Your task to perform on an android device: Open Reddit.com Image 0: 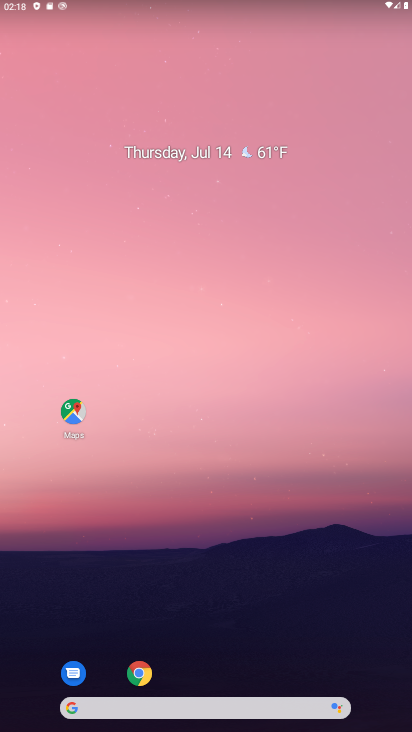
Step 0: drag from (238, 676) to (242, 276)
Your task to perform on an android device: Open Reddit.com Image 1: 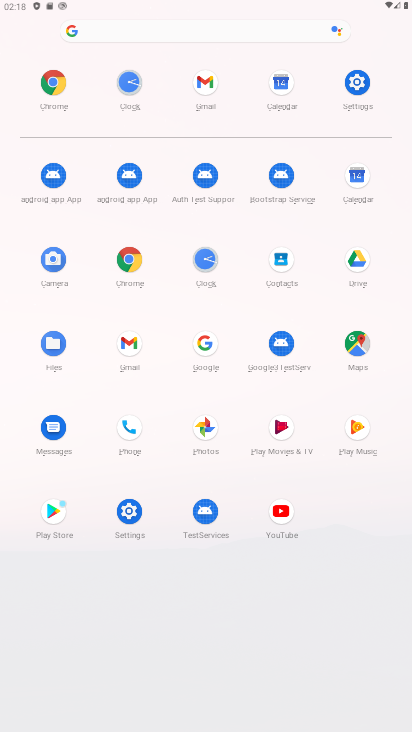
Step 1: click (57, 76)
Your task to perform on an android device: Open Reddit.com Image 2: 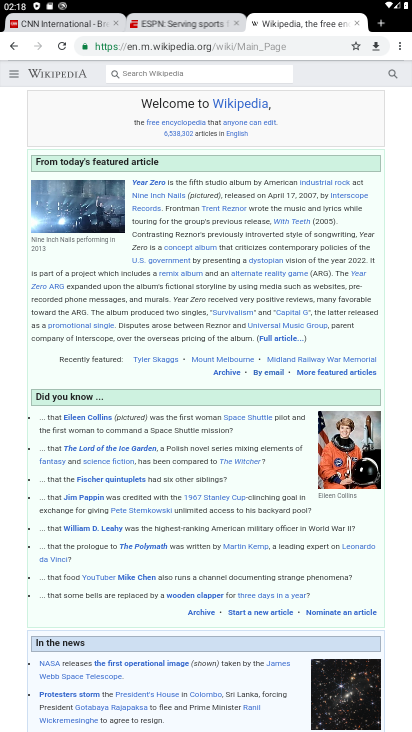
Step 2: click (212, 35)
Your task to perform on an android device: Open Reddit.com Image 3: 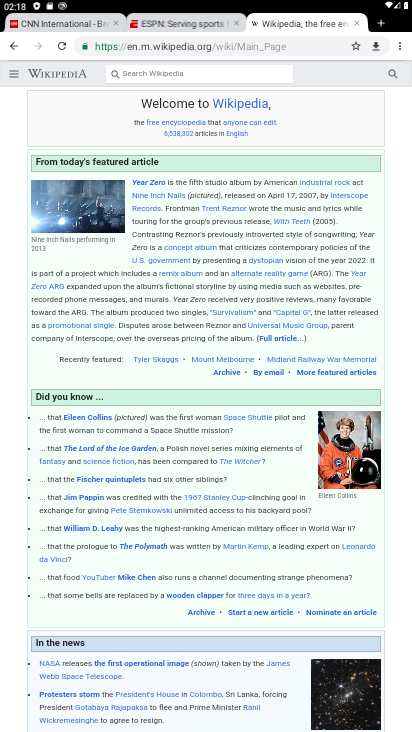
Step 3: click (283, 39)
Your task to perform on an android device: Open Reddit.com Image 4: 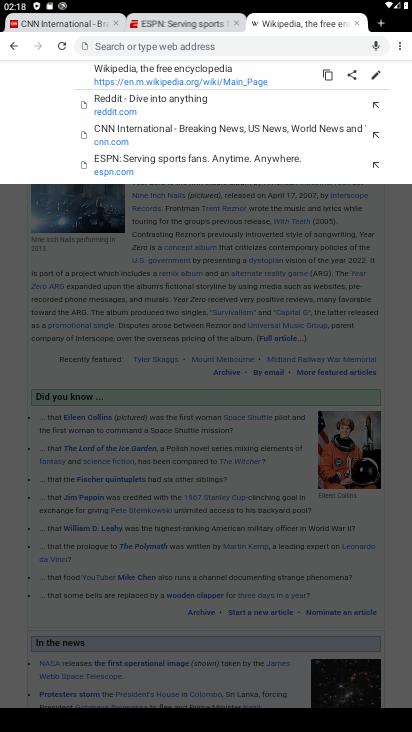
Step 4: type "reddit"
Your task to perform on an android device: Open Reddit.com Image 5: 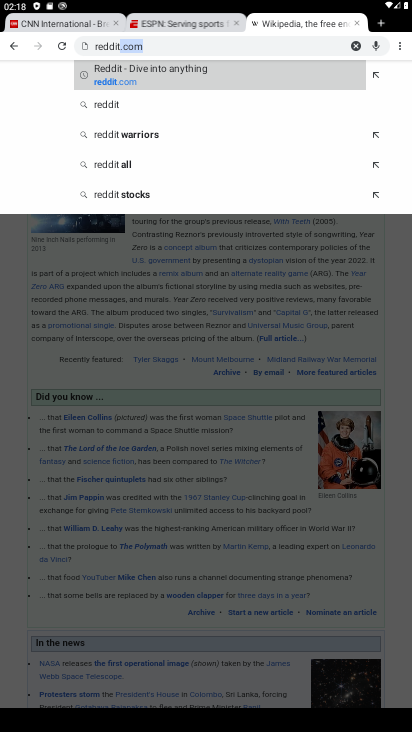
Step 5: click (168, 84)
Your task to perform on an android device: Open Reddit.com Image 6: 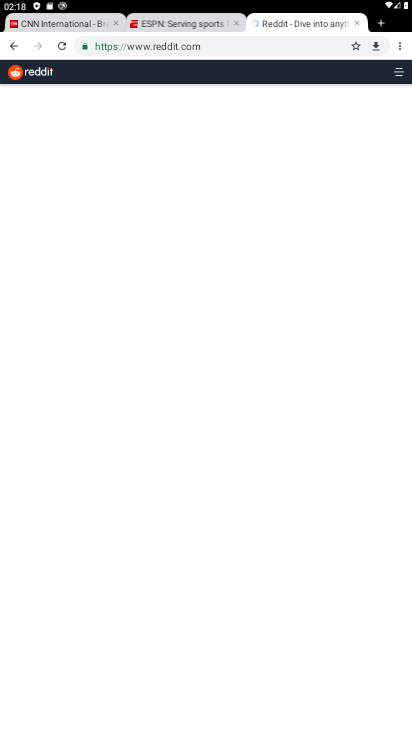
Step 6: task complete